Your task to perform on an android device: remove spam from my inbox in the gmail app Image 0: 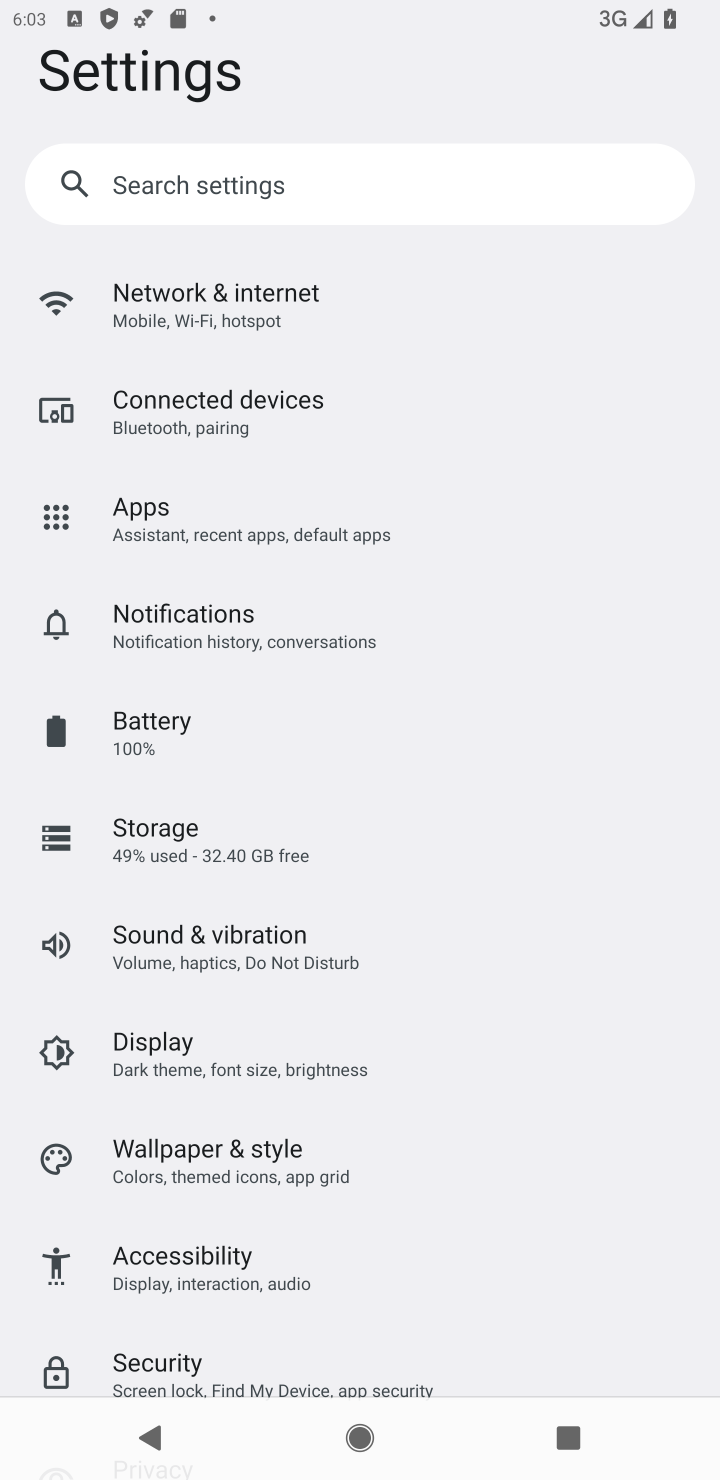
Step 0: press home button
Your task to perform on an android device: remove spam from my inbox in the gmail app Image 1: 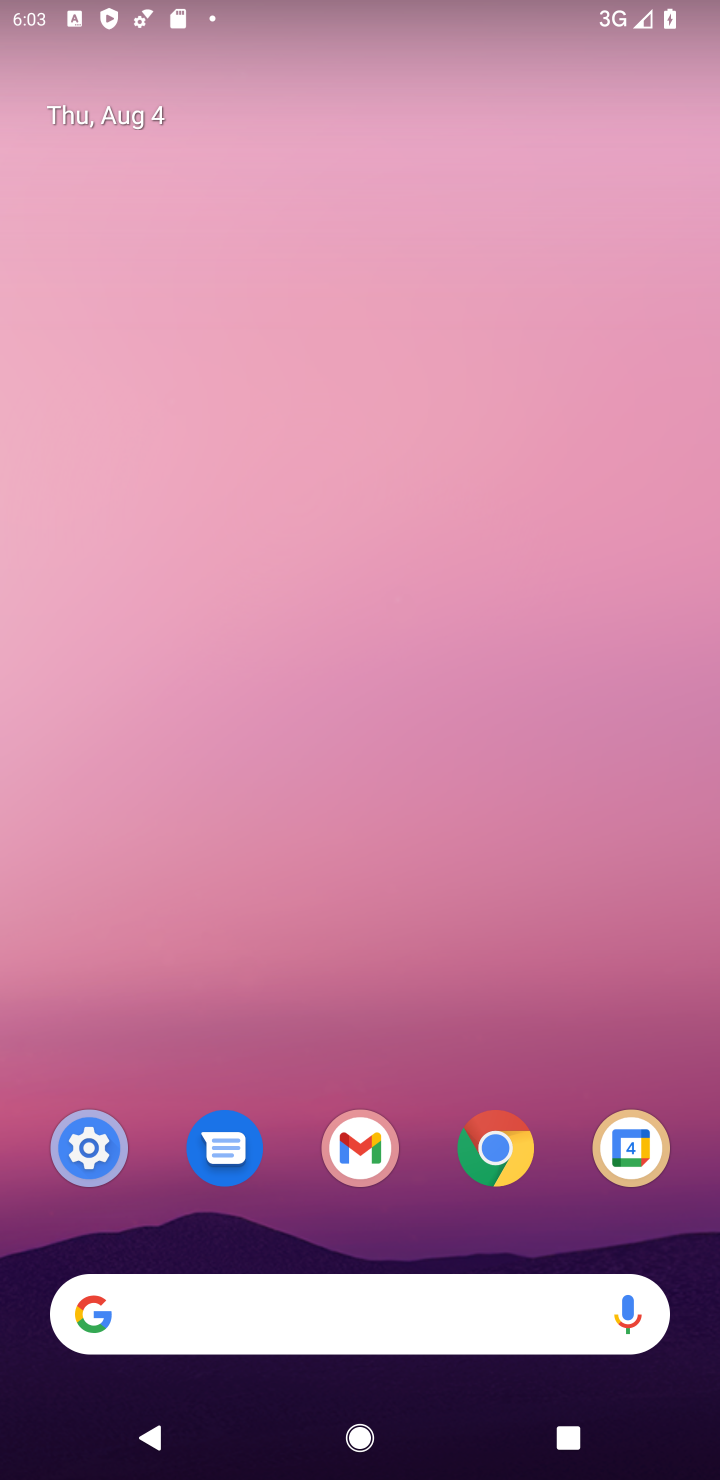
Step 1: click (358, 1146)
Your task to perform on an android device: remove spam from my inbox in the gmail app Image 2: 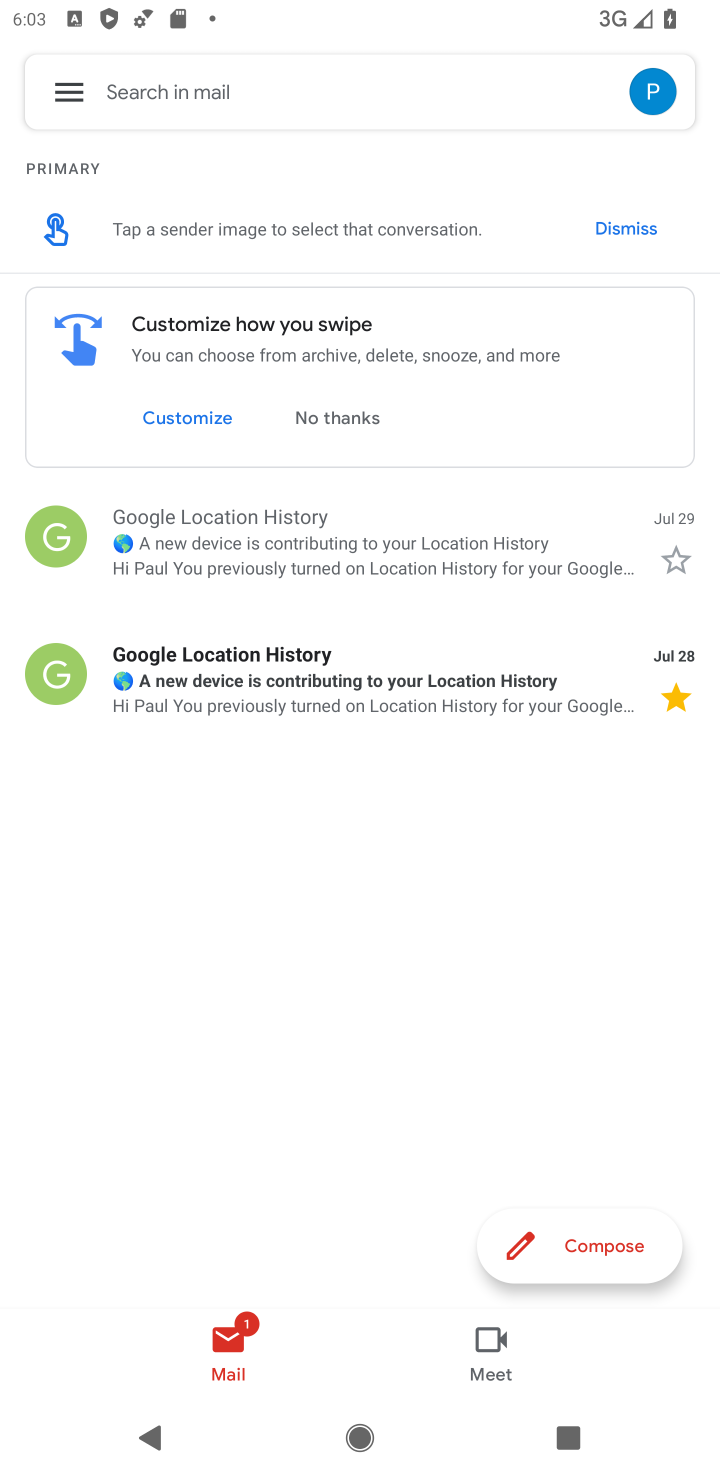
Step 2: click (58, 86)
Your task to perform on an android device: remove spam from my inbox in the gmail app Image 3: 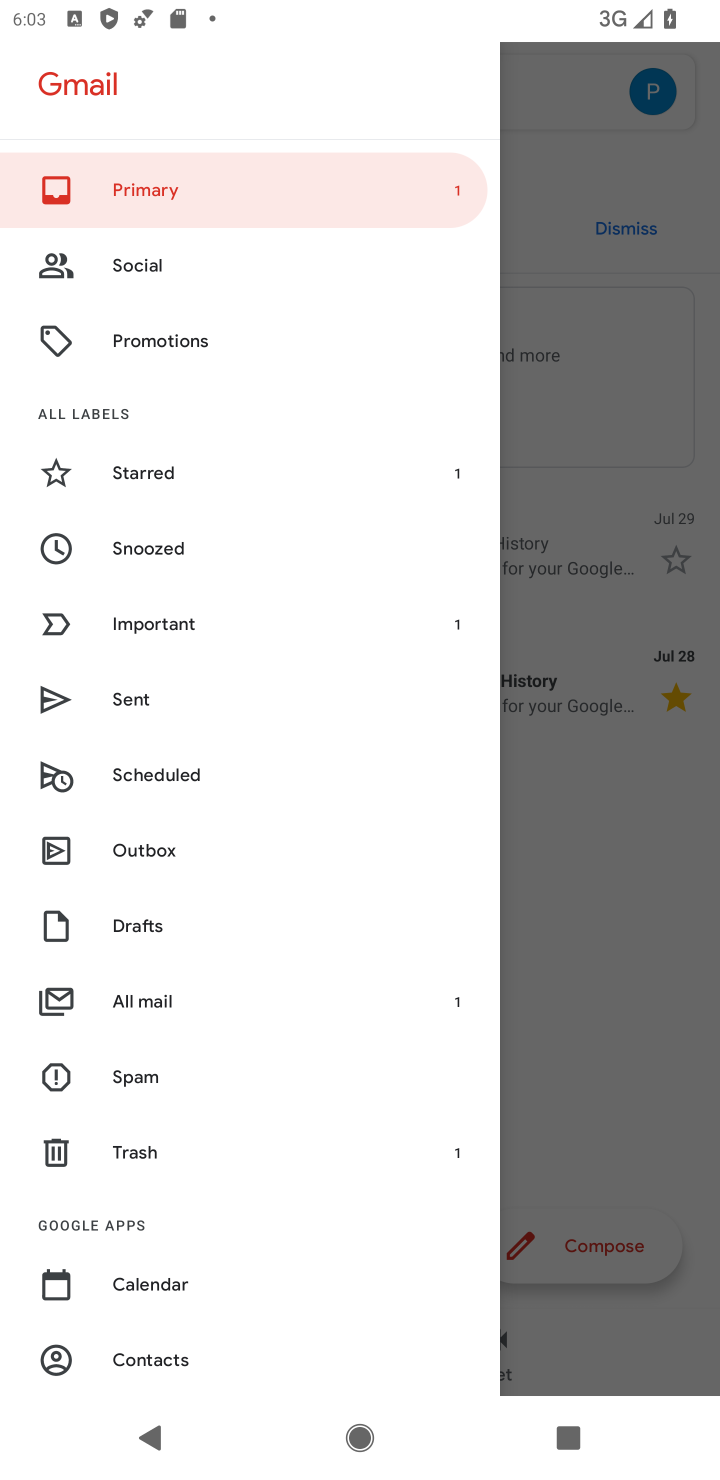
Step 3: click (127, 1079)
Your task to perform on an android device: remove spam from my inbox in the gmail app Image 4: 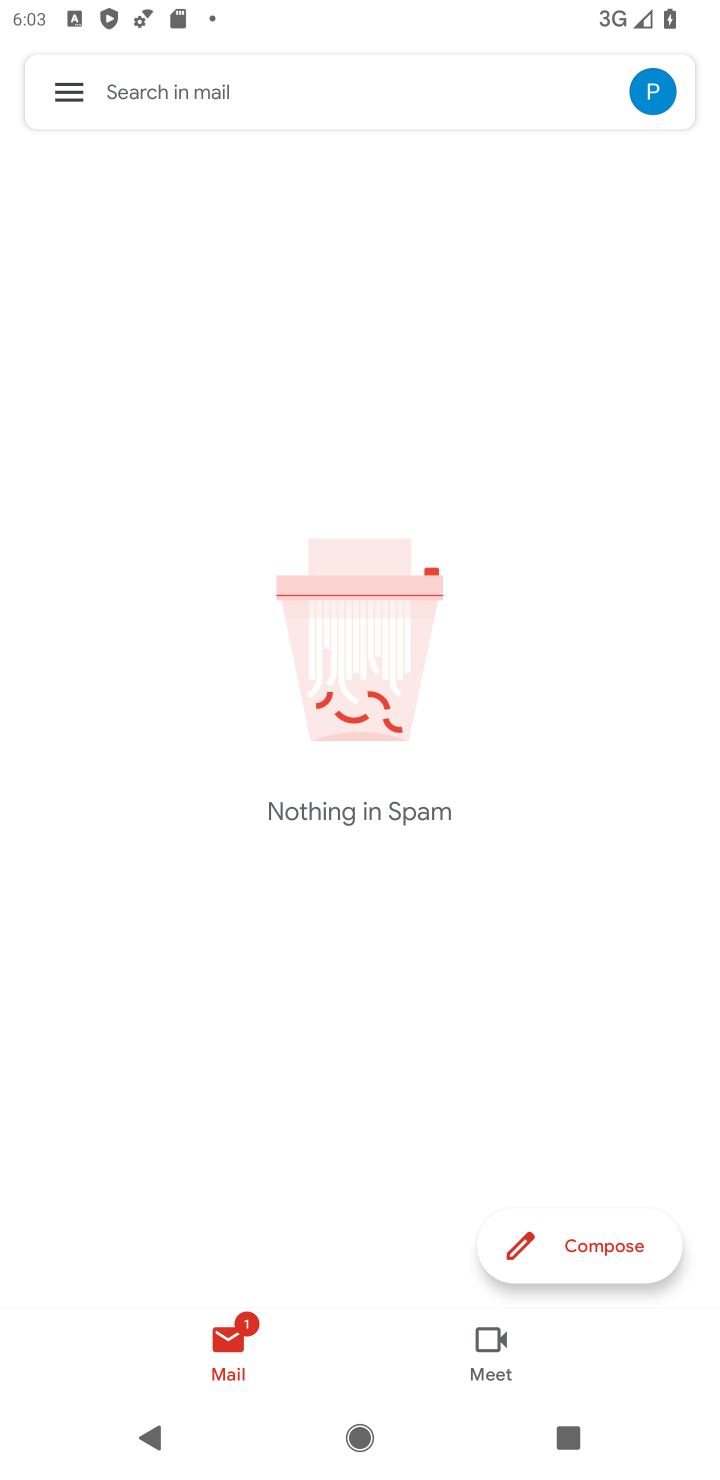
Step 4: task complete